Your task to perform on an android device: delete browsing data in the chrome app Image 0: 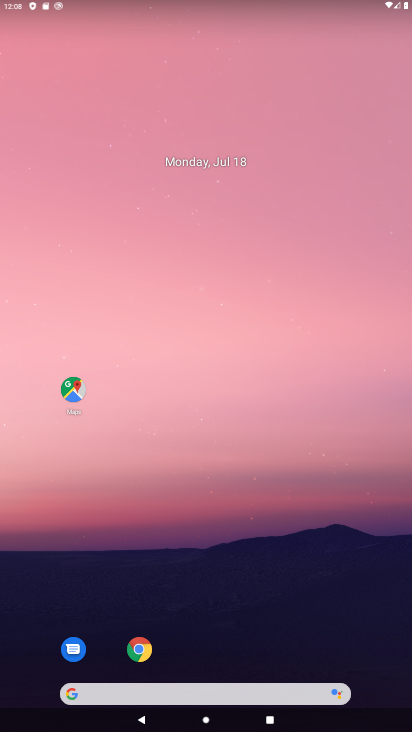
Step 0: click (127, 653)
Your task to perform on an android device: delete browsing data in the chrome app Image 1: 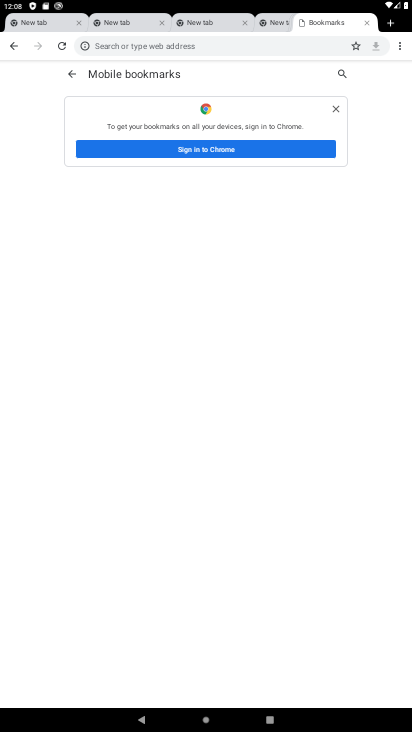
Step 1: click (398, 43)
Your task to perform on an android device: delete browsing data in the chrome app Image 2: 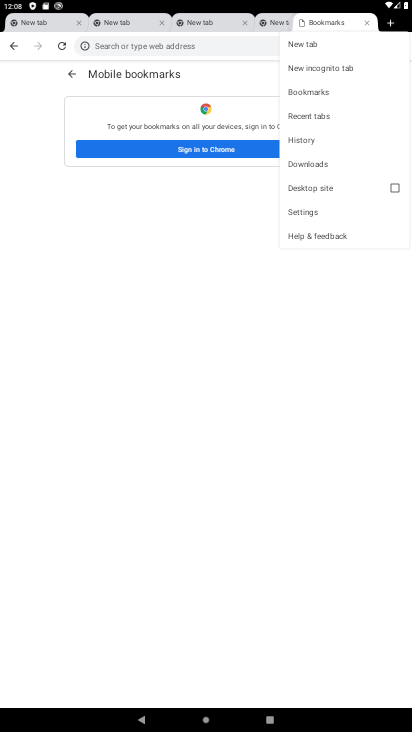
Step 2: click (304, 133)
Your task to perform on an android device: delete browsing data in the chrome app Image 3: 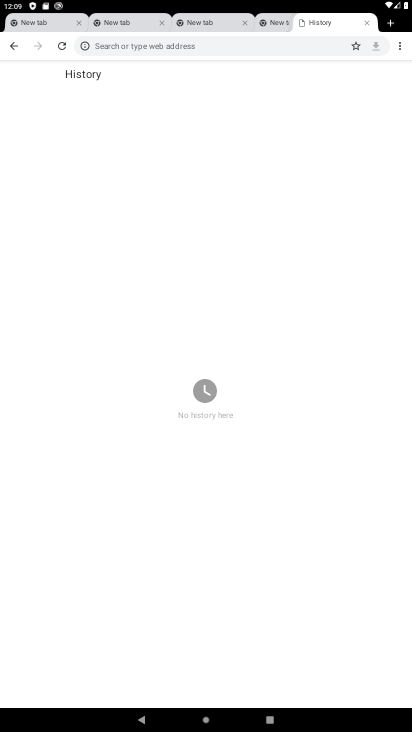
Step 3: task complete